Your task to perform on an android device: Open ESPN.com Image 0: 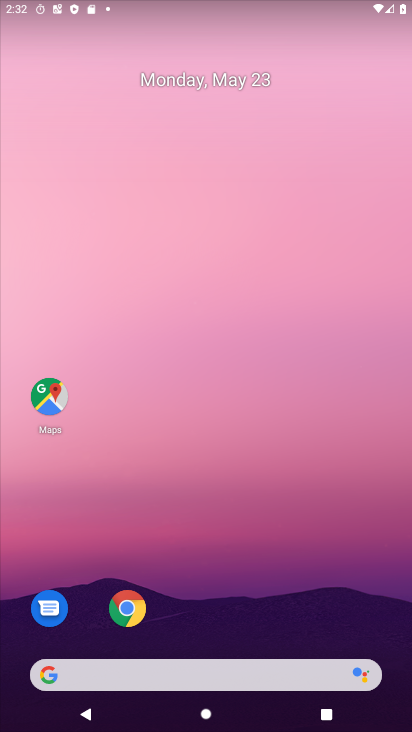
Step 0: click (128, 619)
Your task to perform on an android device: Open ESPN.com Image 1: 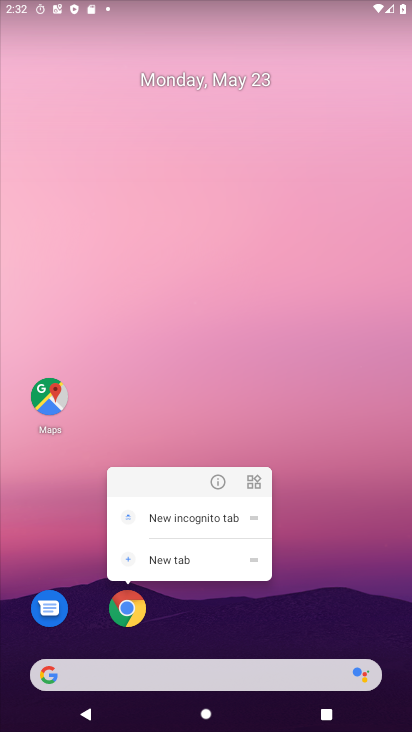
Step 1: click (136, 609)
Your task to perform on an android device: Open ESPN.com Image 2: 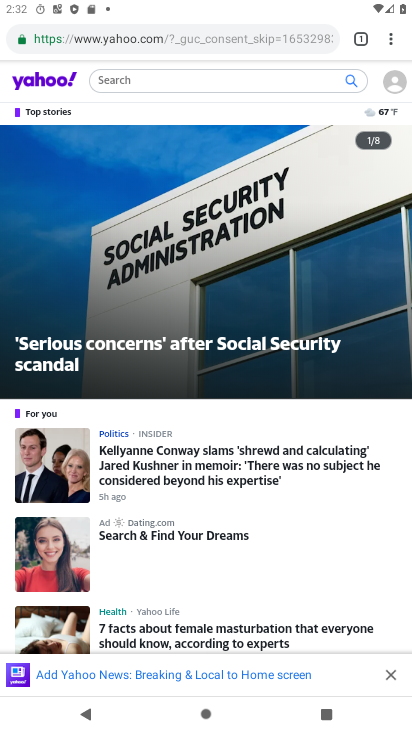
Step 2: click (122, 34)
Your task to perform on an android device: Open ESPN.com Image 3: 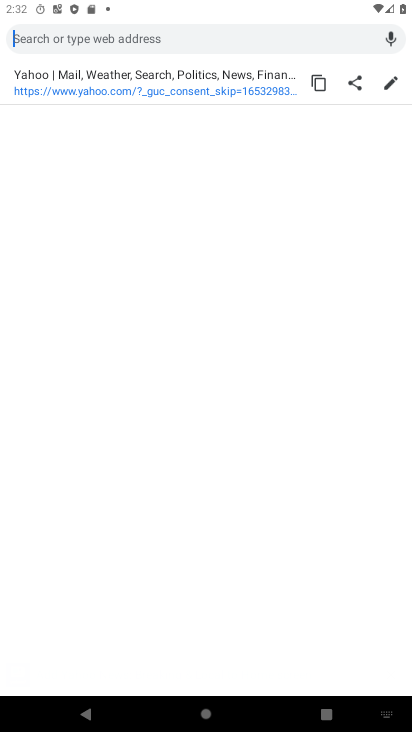
Step 3: type "ESPN.com"
Your task to perform on an android device: Open ESPN.com Image 4: 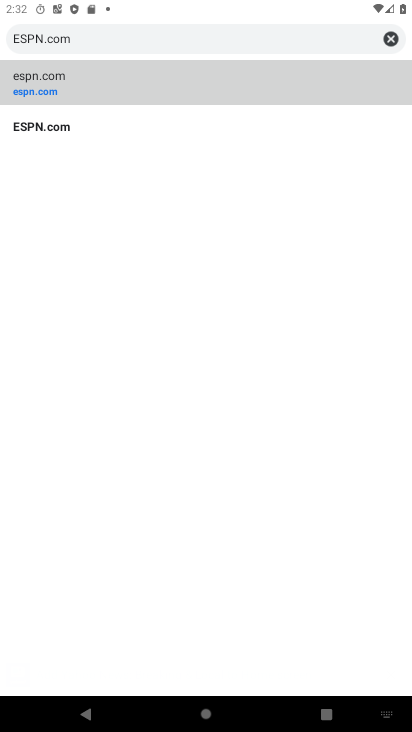
Step 4: click (45, 125)
Your task to perform on an android device: Open ESPN.com Image 5: 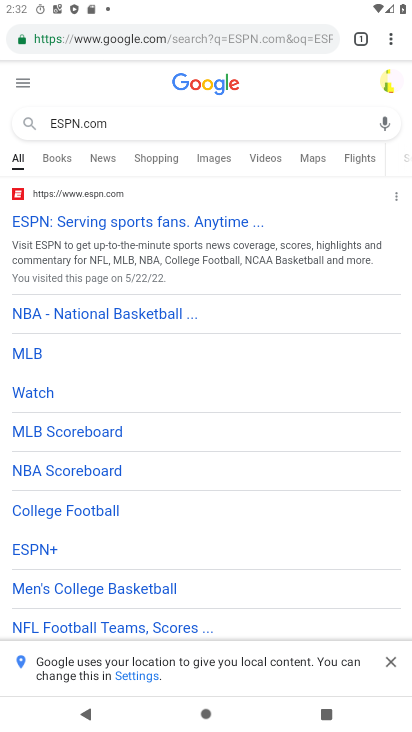
Step 5: click (288, 405)
Your task to perform on an android device: Open ESPN.com Image 6: 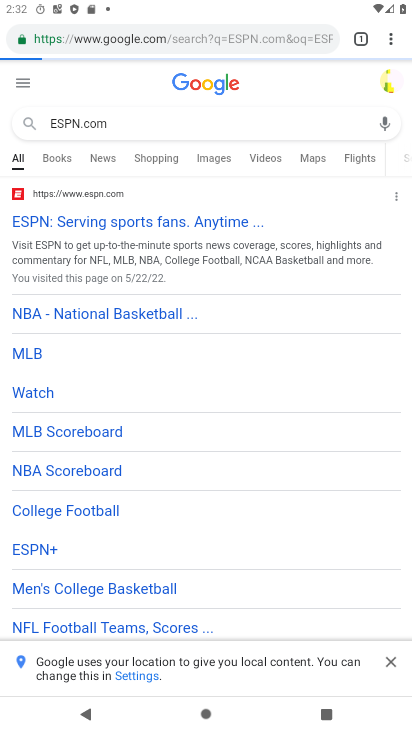
Step 6: task complete